Your task to perform on an android device: change the clock style Image 0: 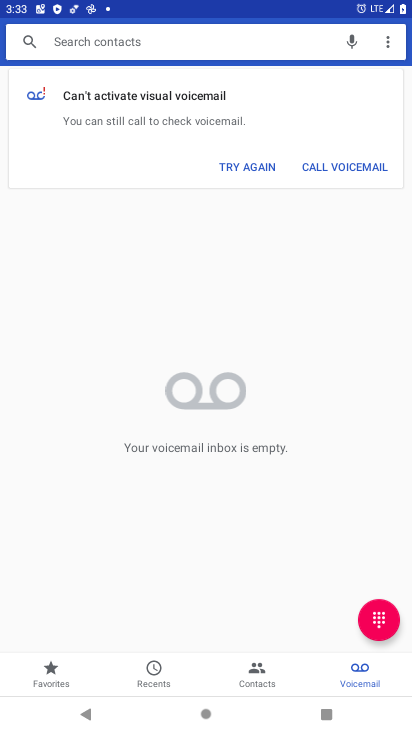
Step 0: press home button
Your task to perform on an android device: change the clock style Image 1: 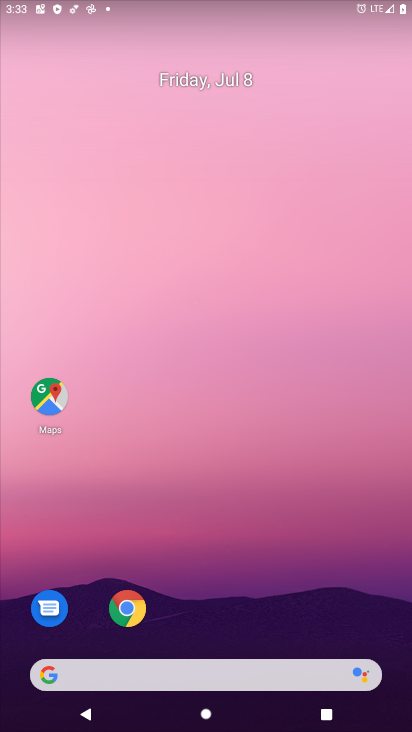
Step 1: drag from (317, 666) to (226, 68)
Your task to perform on an android device: change the clock style Image 2: 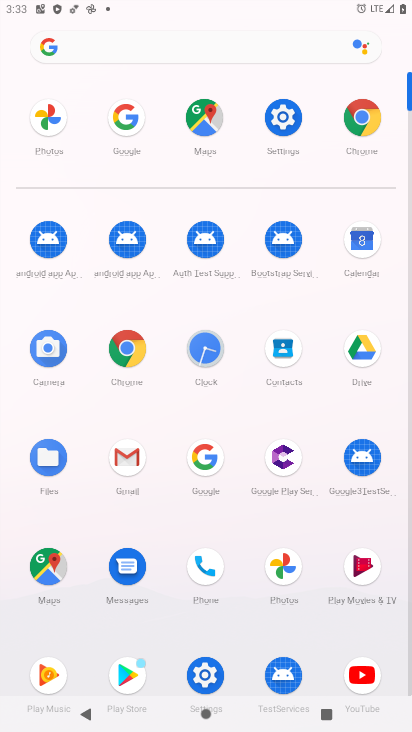
Step 2: click (202, 344)
Your task to perform on an android device: change the clock style Image 3: 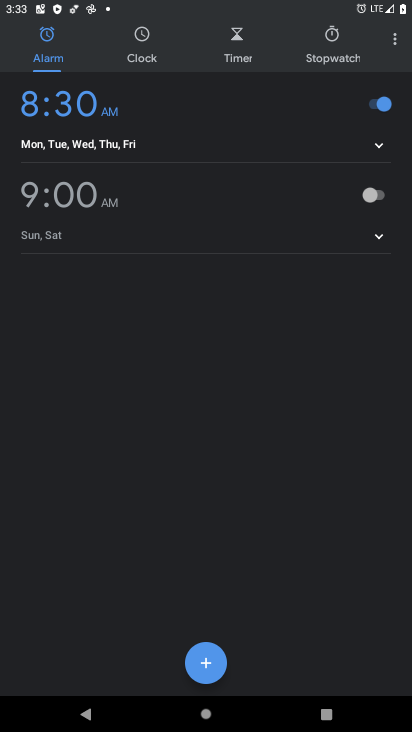
Step 3: click (384, 37)
Your task to perform on an android device: change the clock style Image 4: 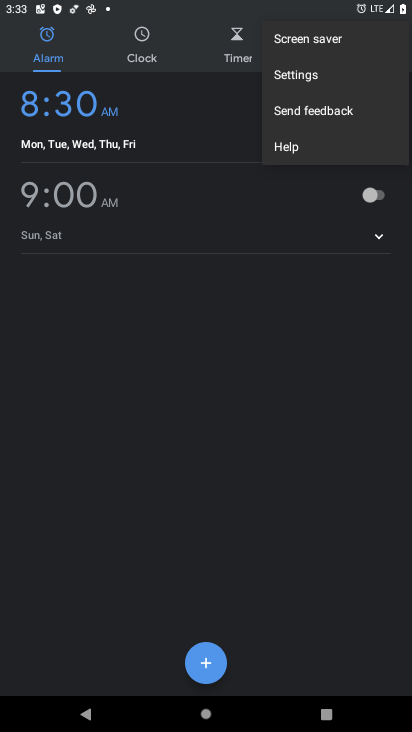
Step 4: click (302, 84)
Your task to perform on an android device: change the clock style Image 5: 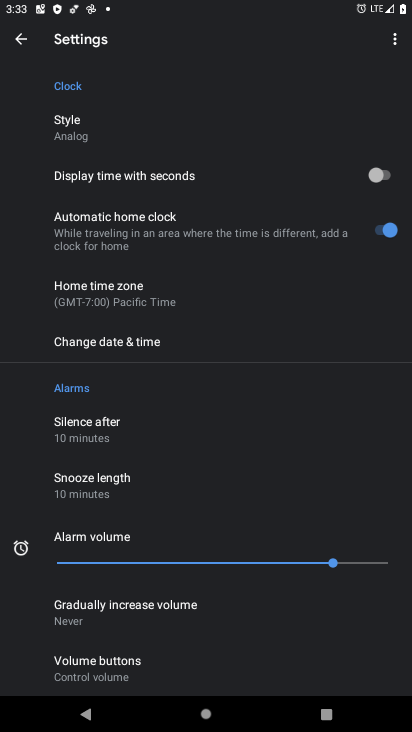
Step 5: click (91, 127)
Your task to perform on an android device: change the clock style Image 6: 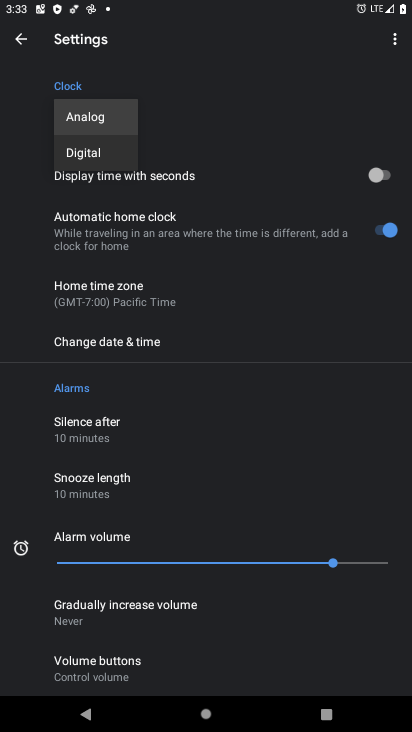
Step 6: click (90, 149)
Your task to perform on an android device: change the clock style Image 7: 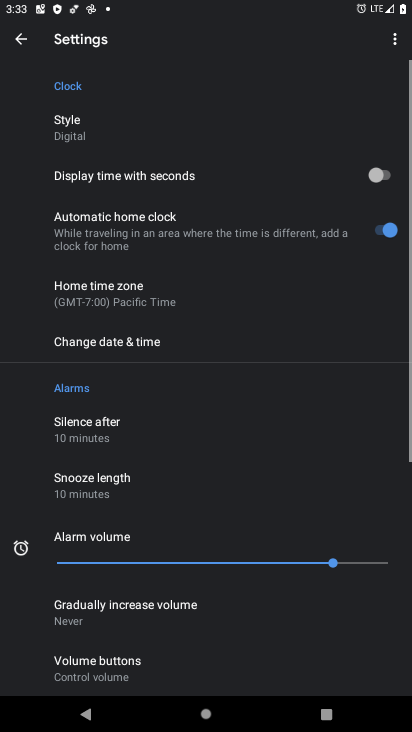
Step 7: task complete